Your task to perform on an android device: open the mobile data screen to see how much data has been used Image 0: 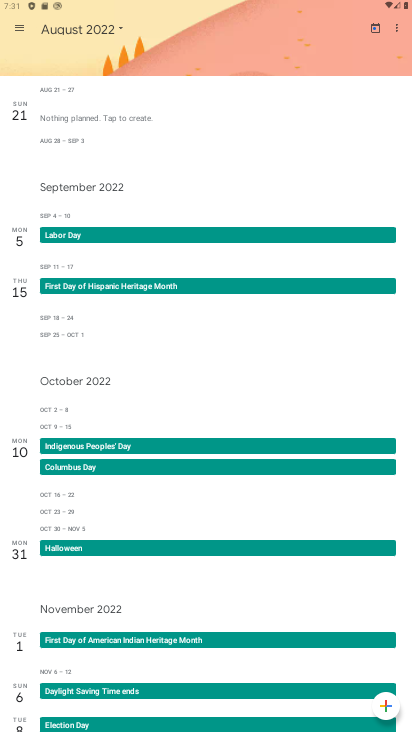
Step 0: press home button
Your task to perform on an android device: open the mobile data screen to see how much data has been used Image 1: 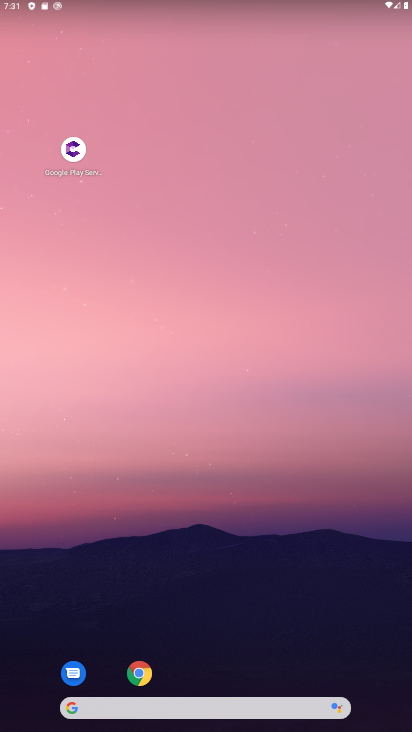
Step 1: drag from (147, 695) to (150, 78)
Your task to perform on an android device: open the mobile data screen to see how much data has been used Image 2: 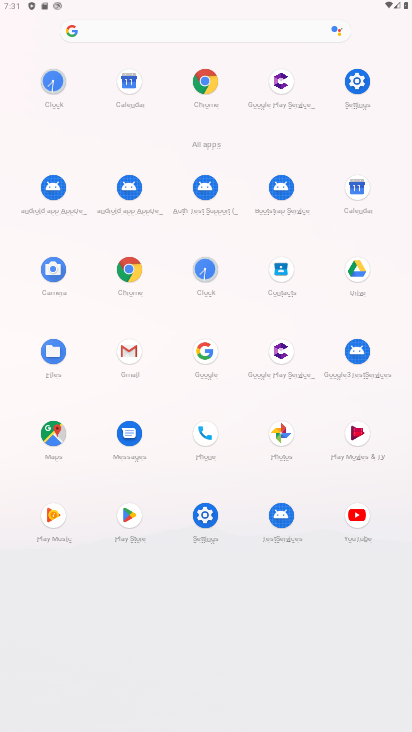
Step 2: click (354, 81)
Your task to perform on an android device: open the mobile data screen to see how much data has been used Image 3: 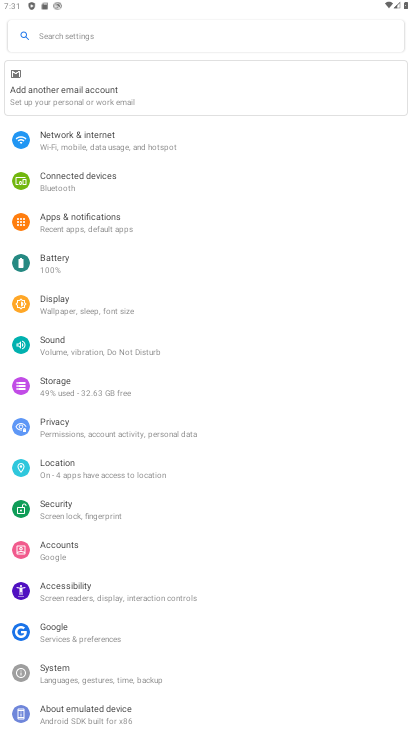
Step 3: click (103, 145)
Your task to perform on an android device: open the mobile data screen to see how much data has been used Image 4: 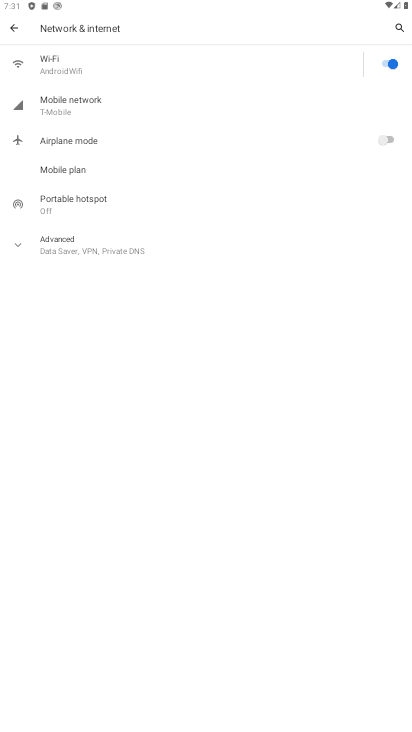
Step 4: click (52, 111)
Your task to perform on an android device: open the mobile data screen to see how much data has been used Image 5: 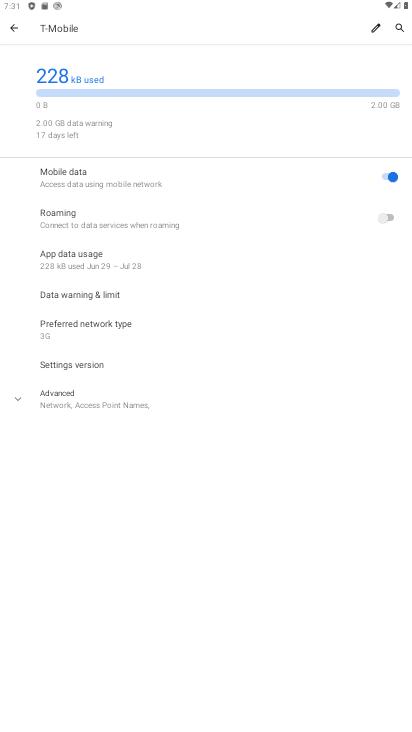
Step 5: task complete